Your task to perform on an android device: Search for vegetarian restaurants on Maps Image 0: 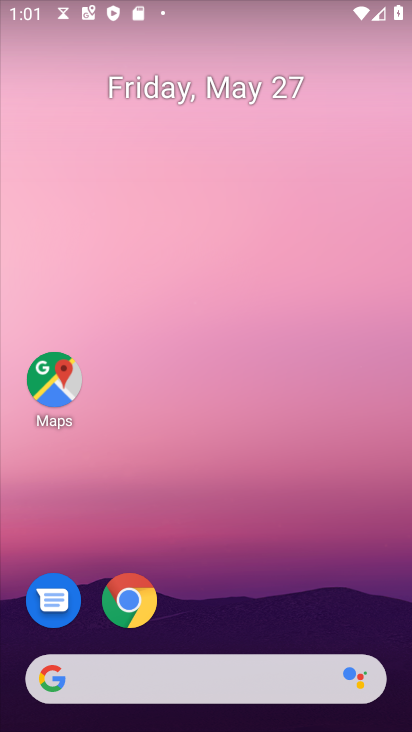
Step 0: click (46, 369)
Your task to perform on an android device: Search for vegetarian restaurants on Maps Image 1: 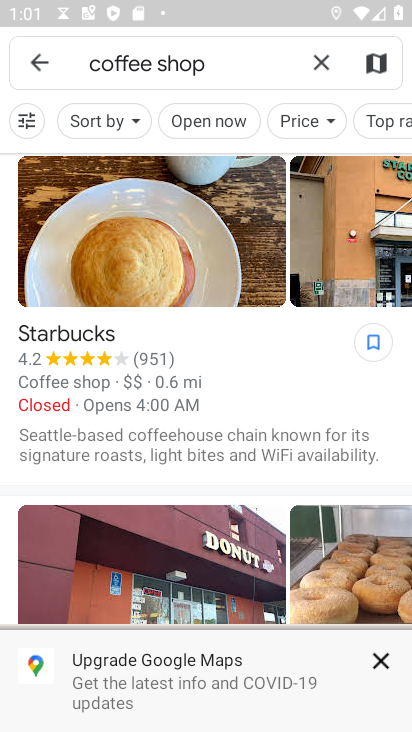
Step 1: click (324, 57)
Your task to perform on an android device: Search for vegetarian restaurants on Maps Image 2: 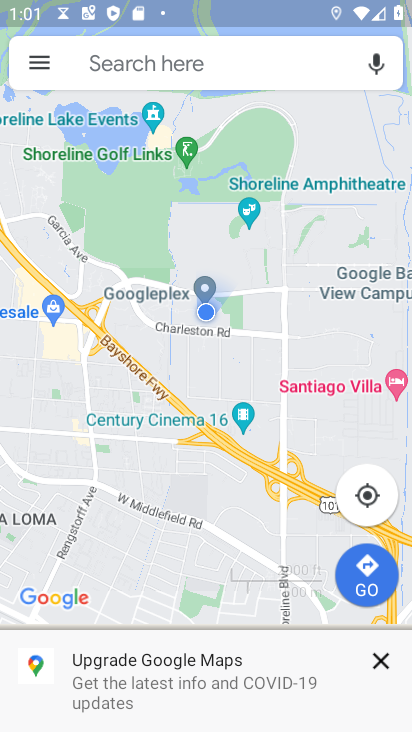
Step 2: click (228, 61)
Your task to perform on an android device: Search for vegetarian restaurants on Maps Image 3: 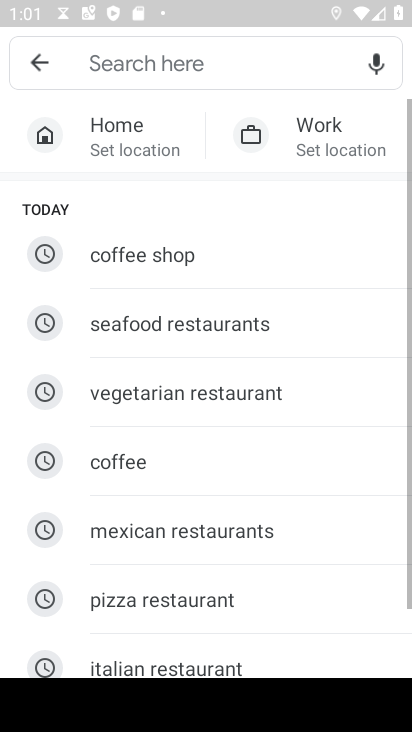
Step 3: click (204, 384)
Your task to perform on an android device: Search for vegetarian restaurants on Maps Image 4: 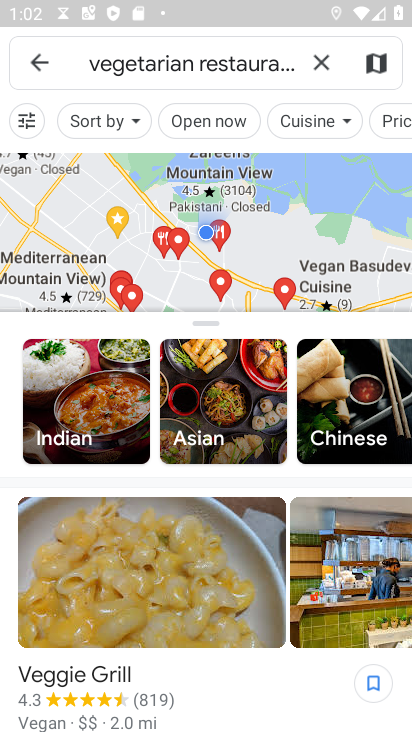
Step 4: task complete